Your task to perform on an android device: add a contact in the contacts app Image 0: 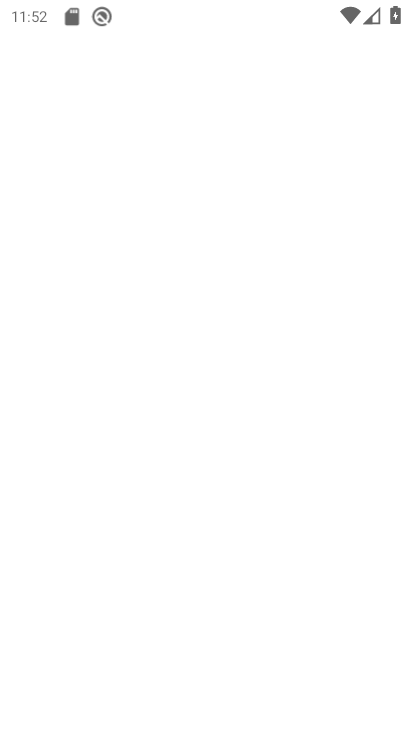
Step 0: drag from (353, 320) to (353, 94)
Your task to perform on an android device: add a contact in the contacts app Image 1: 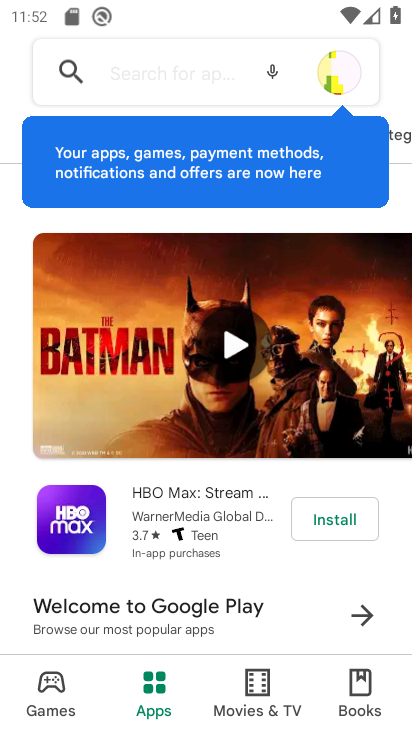
Step 1: press home button
Your task to perform on an android device: add a contact in the contacts app Image 2: 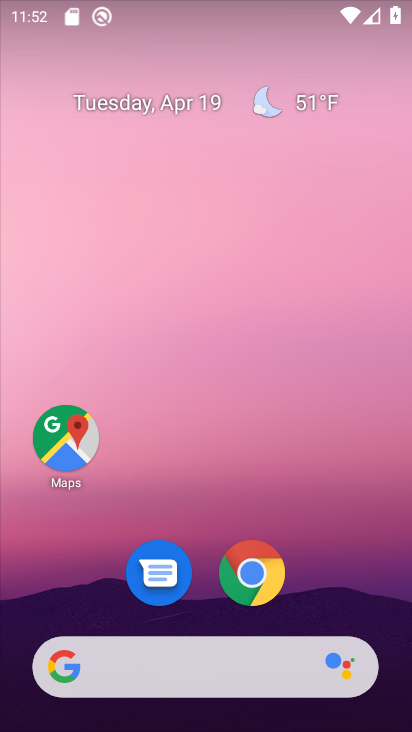
Step 2: drag from (329, 571) to (327, 168)
Your task to perform on an android device: add a contact in the contacts app Image 3: 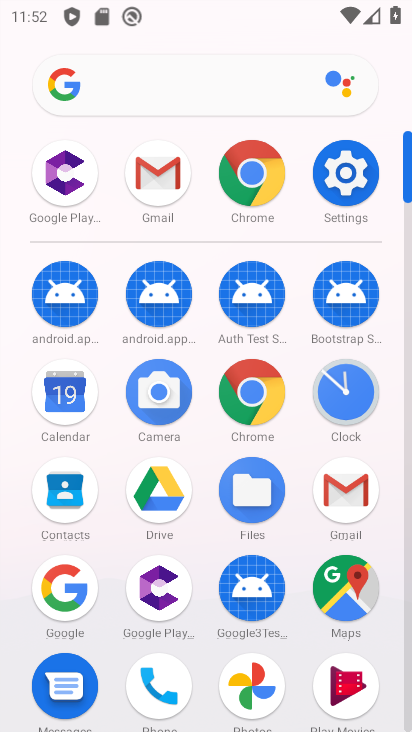
Step 3: click (77, 502)
Your task to perform on an android device: add a contact in the contacts app Image 4: 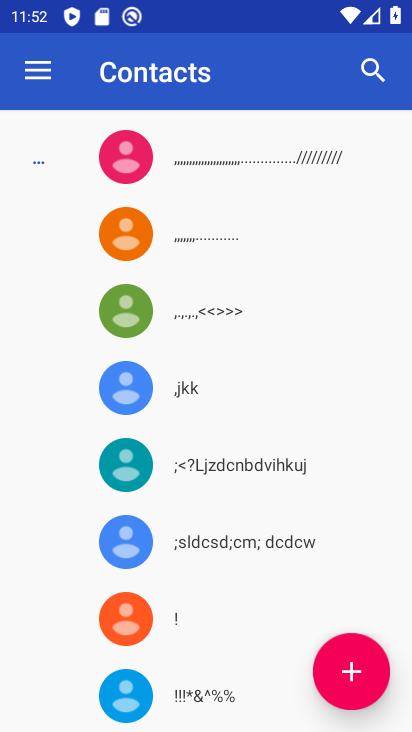
Step 4: click (345, 705)
Your task to perform on an android device: add a contact in the contacts app Image 5: 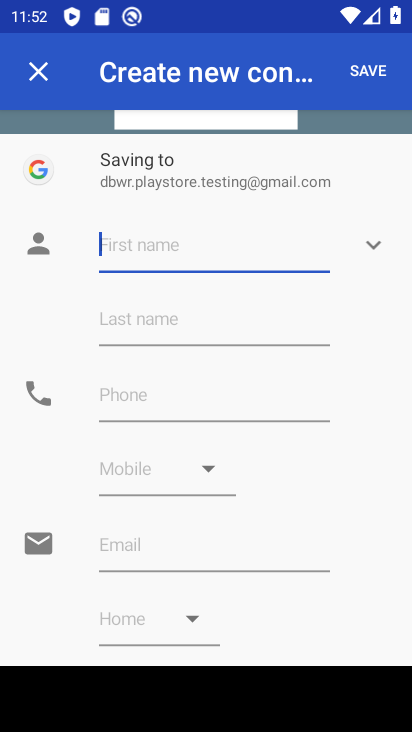
Step 5: type "Rudra"
Your task to perform on an android device: add a contact in the contacts app Image 6: 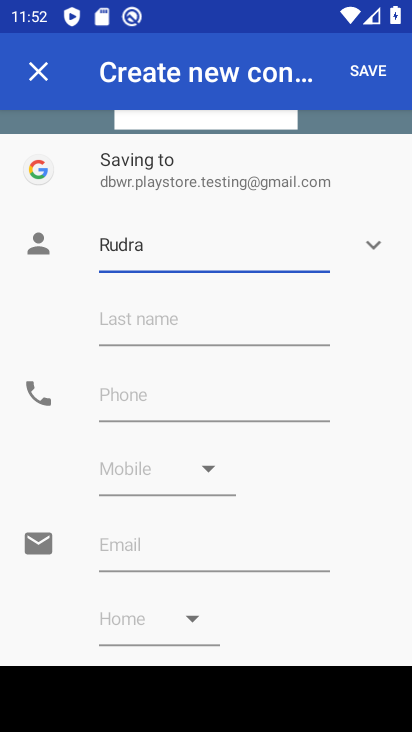
Step 6: click (167, 407)
Your task to perform on an android device: add a contact in the contacts app Image 7: 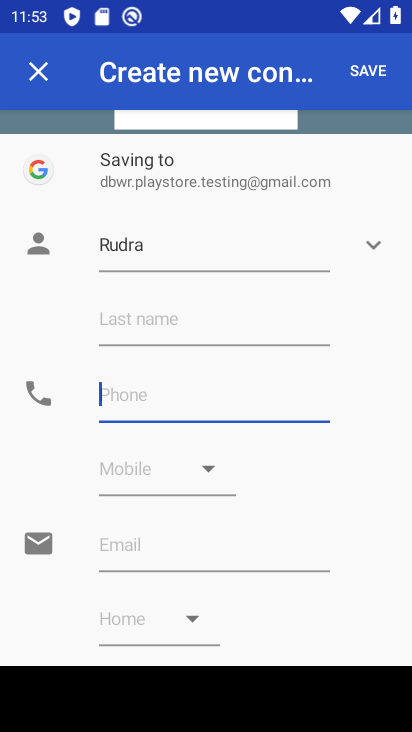
Step 7: type "2324354666"
Your task to perform on an android device: add a contact in the contacts app Image 8: 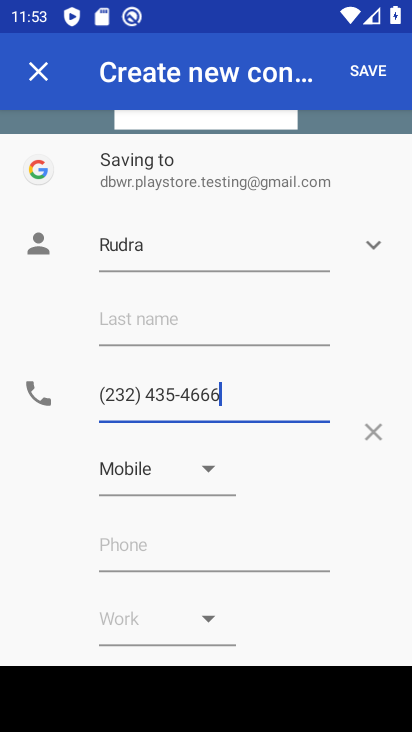
Step 8: click (364, 67)
Your task to perform on an android device: add a contact in the contacts app Image 9: 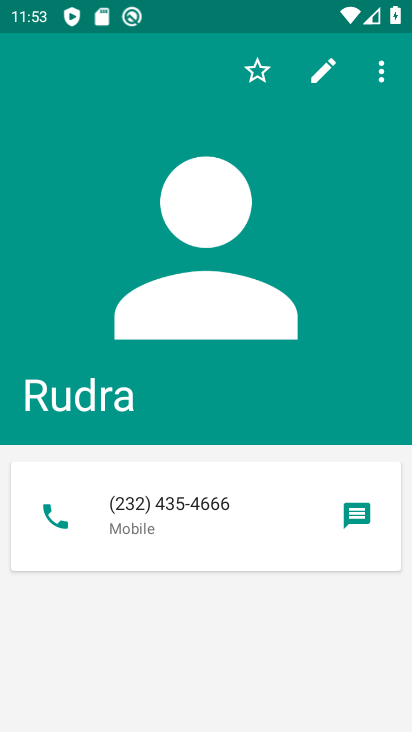
Step 9: task complete